Your task to perform on an android device: turn pop-ups on in chrome Image 0: 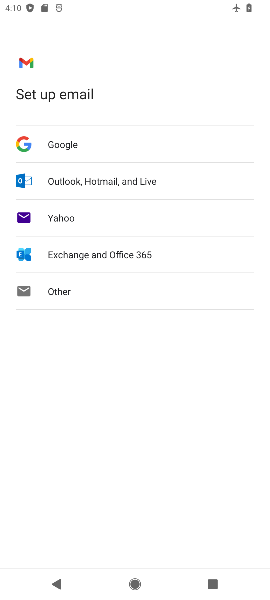
Step 0: press home button
Your task to perform on an android device: turn pop-ups on in chrome Image 1: 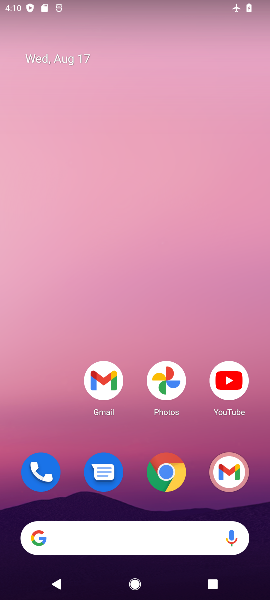
Step 1: click (174, 463)
Your task to perform on an android device: turn pop-ups on in chrome Image 2: 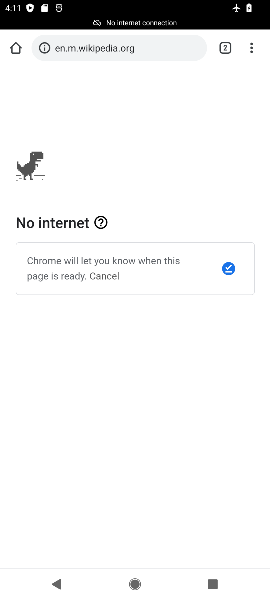
Step 2: click (257, 42)
Your task to perform on an android device: turn pop-ups on in chrome Image 3: 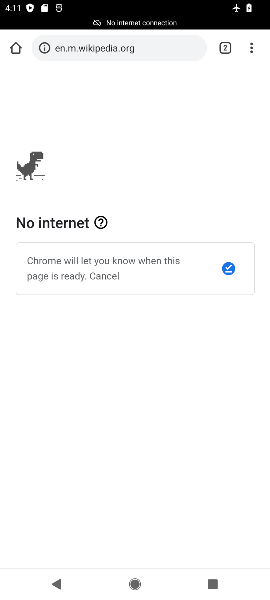
Step 3: click (257, 42)
Your task to perform on an android device: turn pop-ups on in chrome Image 4: 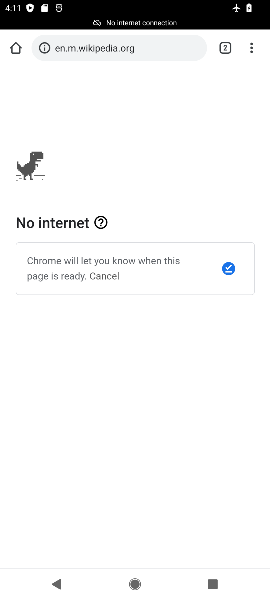
Step 4: click (249, 43)
Your task to perform on an android device: turn pop-ups on in chrome Image 5: 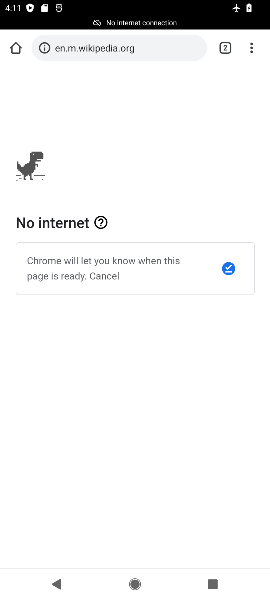
Step 5: drag from (249, 43) to (131, 419)
Your task to perform on an android device: turn pop-ups on in chrome Image 6: 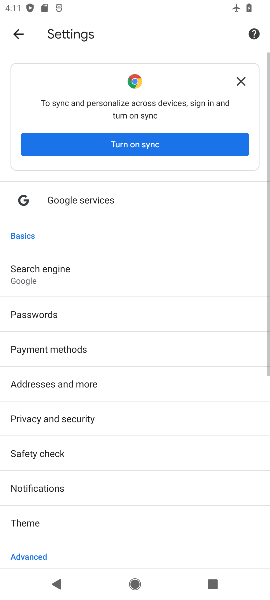
Step 6: drag from (109, 506) to (106, 215)
Your task to perform on an android device: turn pop-ups on in chrome Image 7: 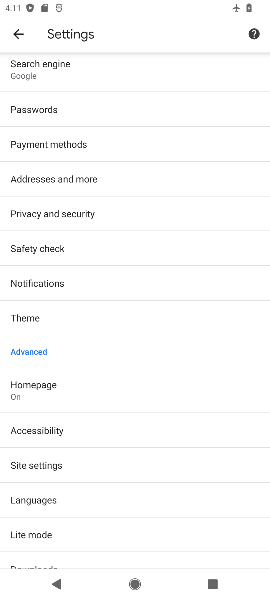
Step 7: click (80, 463)
Your task to perform on an android device: turn pop-ups on in chrome Image 8: 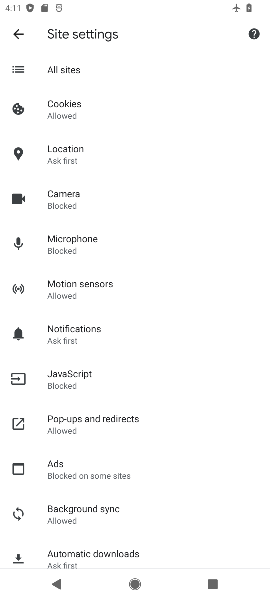
Step 8: click (122, 428)
Your task to perform on an android device: turn pop-ups on in chrome Image 9: 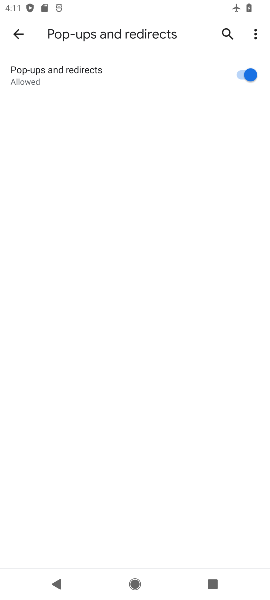
Step 9: task complete